Your task to perform on an android device: clear history in the chrome app Image 0: 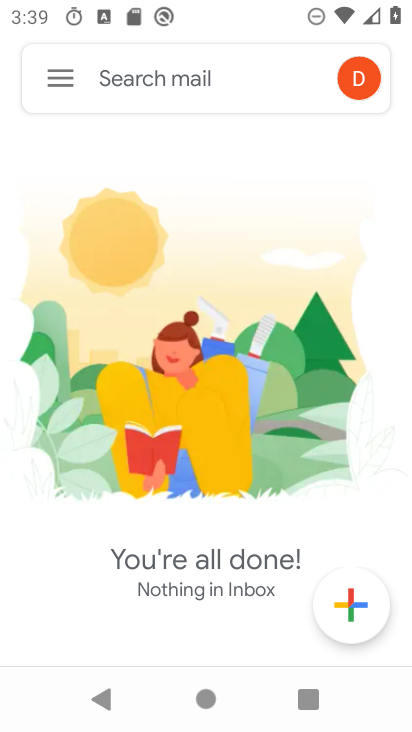
Step 0: press home button
Your task to perform on an android device: clear history in the chrome app Image 1: 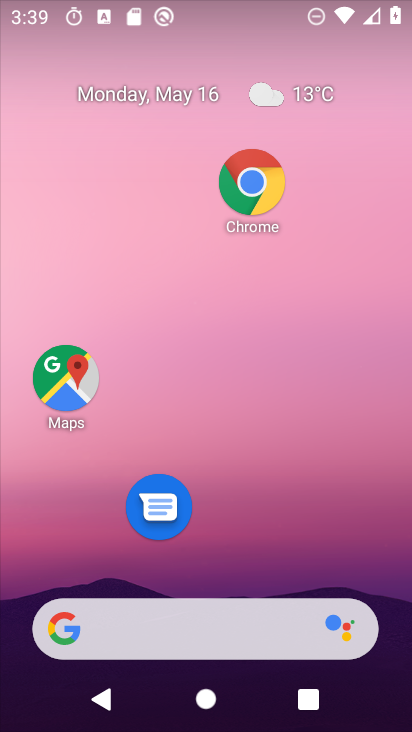
Step 1: drag from (234, 569) to (141, 213)
Your task to perform on an android device: clear history in the chrome app Image 2: 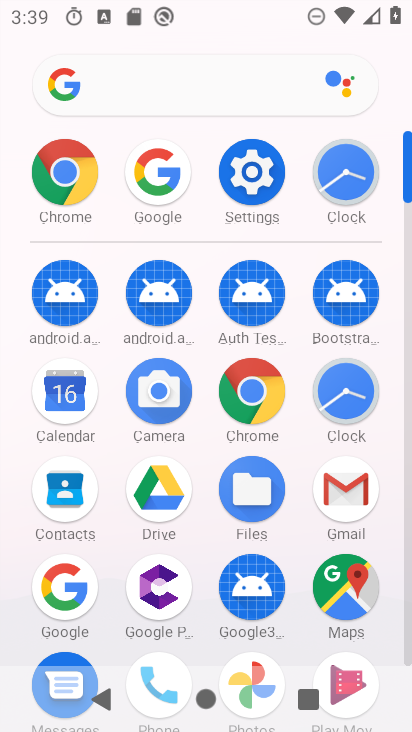
Step 2: click (265, 406)
Your task to perform on an android device: clear history in the chrome app Image 3: 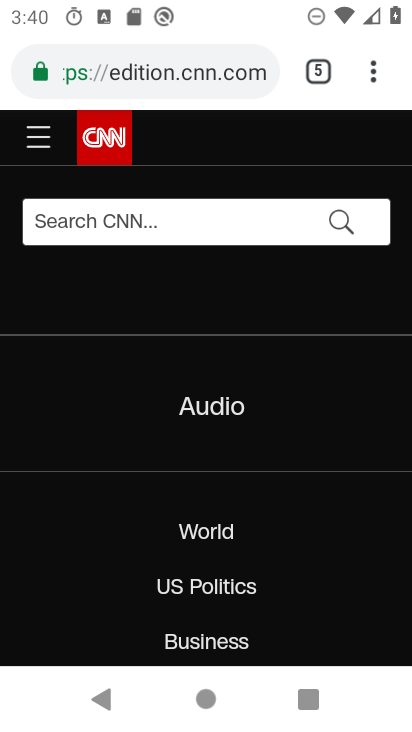
Step 3: click (374, 75)
Your task to perform on an android device: clear history in the chrome app Image 4: 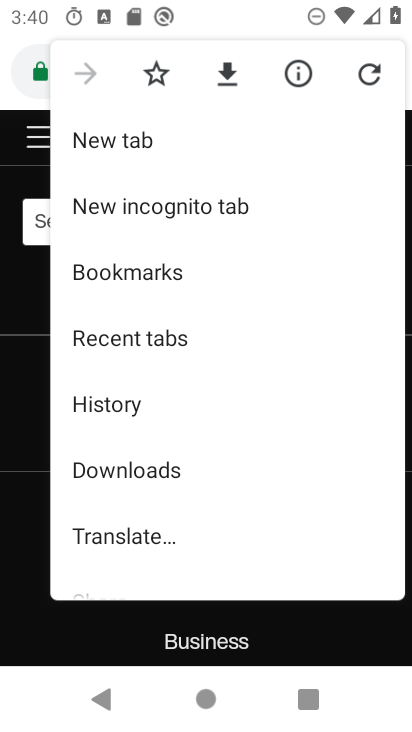
Step 4: click (145, 416)
Your task to perform on an android device: clear history in the chrome app Image 5: 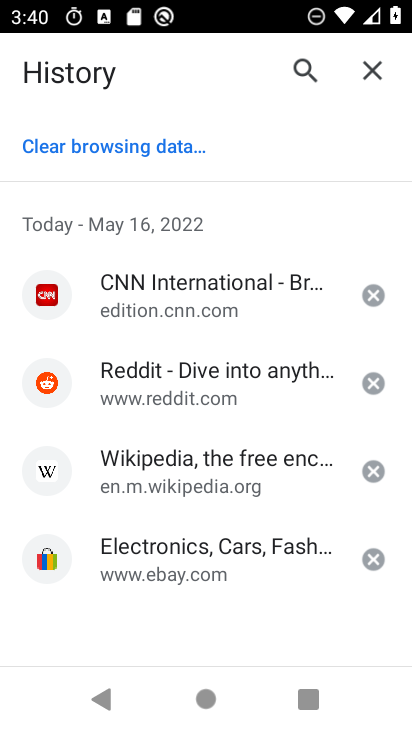
Step 5: click (161, 152)
Your task to perform on an android device: clear history in the chrome app Image 6: 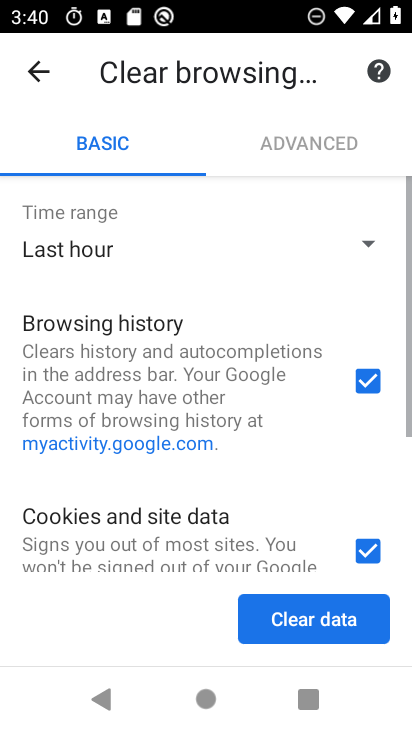
Step 6: click (277, 627)
Your task to perform on an android device: clear history in the chrome app Image 7: 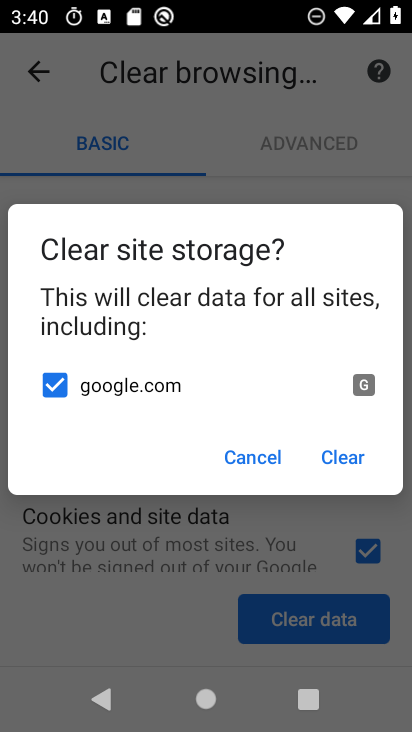
Step 7: click (336, 463)
Your task to perform on an android device: clear history in the chrome app Image 8: 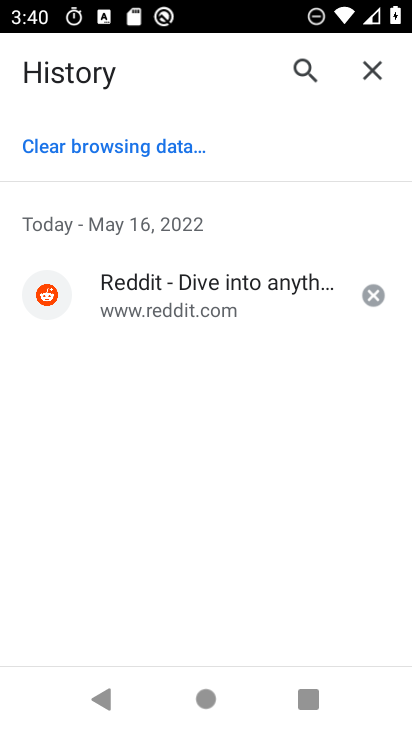
Step 8: click (377, 300)
Your task to perform on an android device: clear history in the chrome app Image 9: 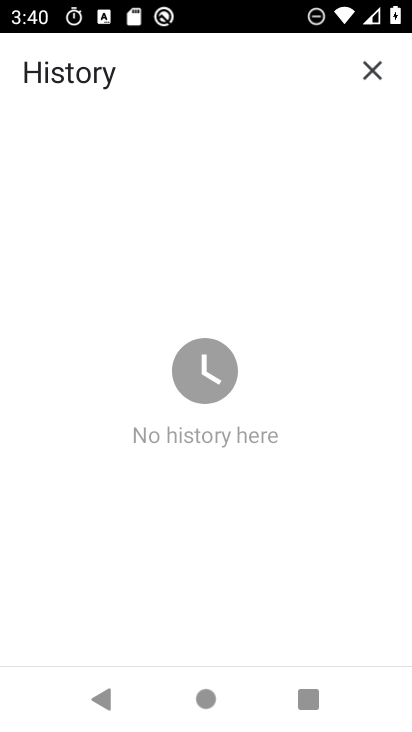
Step 9: task complete